Your task to perform on an android device: Open the phone app and click the voicemail tab. Image 0: 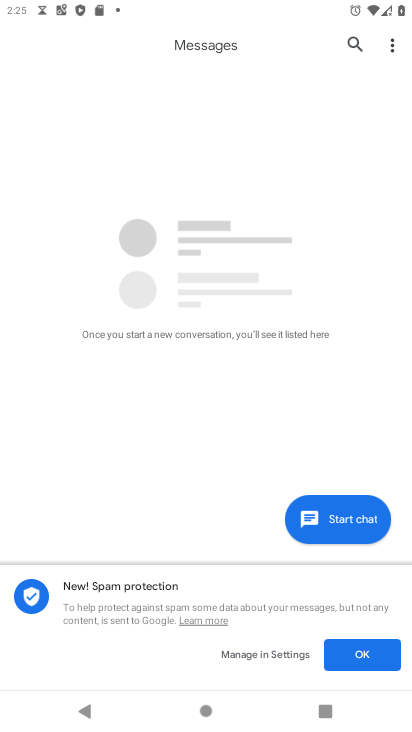
Step 0: press home button
Your task to perform on an android device: Open the phone app and click the voicemail tab. Image 1: 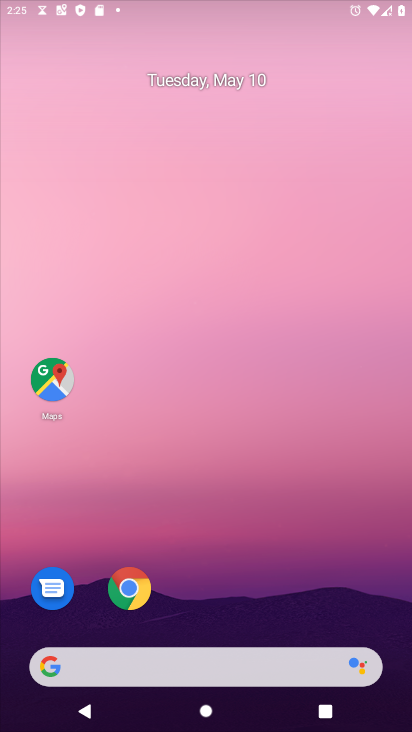
Step 1: drag from (222, 582) to (218, 248)
Your task to perform on an android device: Open the phone app and click the voicemail tab. Image 2: 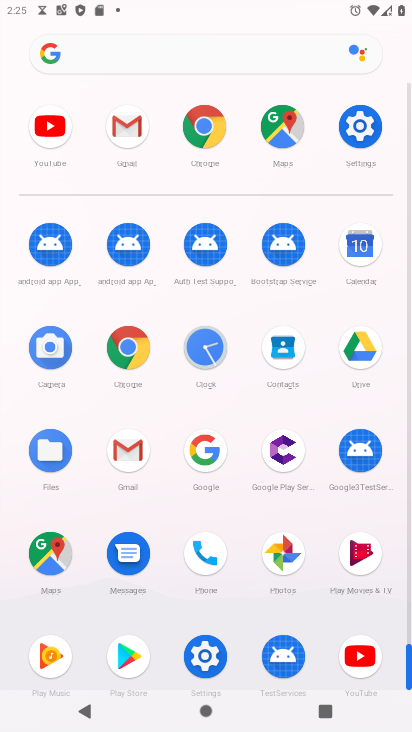
Step 2: drag from (344, 660) to (312, 465)
Your task to perform on an android device: Open the phone app and click the voicemail tab. Image 3: 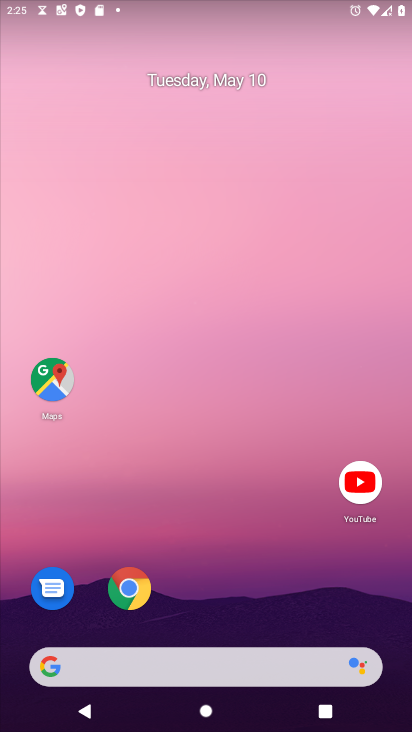
Step 3: drag from (236, 594) to (235, 392)
Your task to perform on an android device: Open the phone app and click the voicemail tab. Image 4: 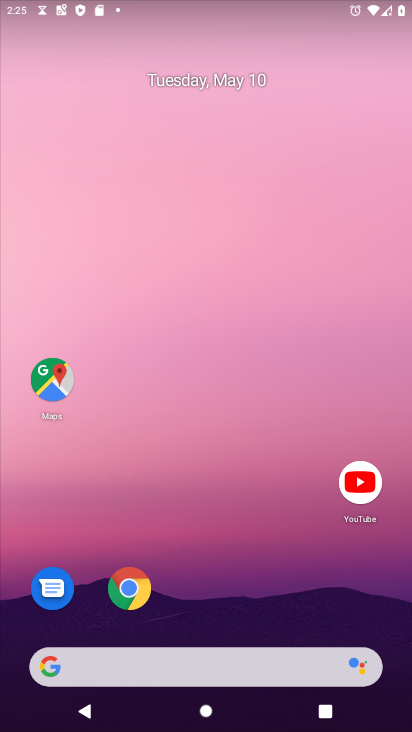
Step 4: drag from (267, 591) to (247, 312)
Your task to perform on an android device: Open the phone app and click the voicemail tab. Image 5: 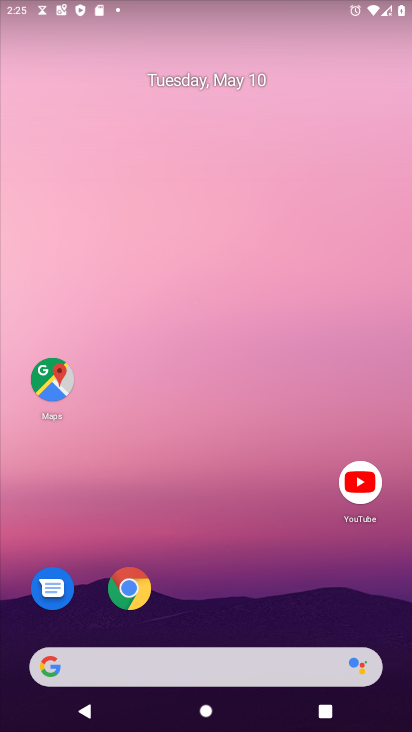
Step 5: drag from (310, 589) to (270, 271)
Your task to perform on an android device: Open the phone app and click the voicemail tab. Image 6: 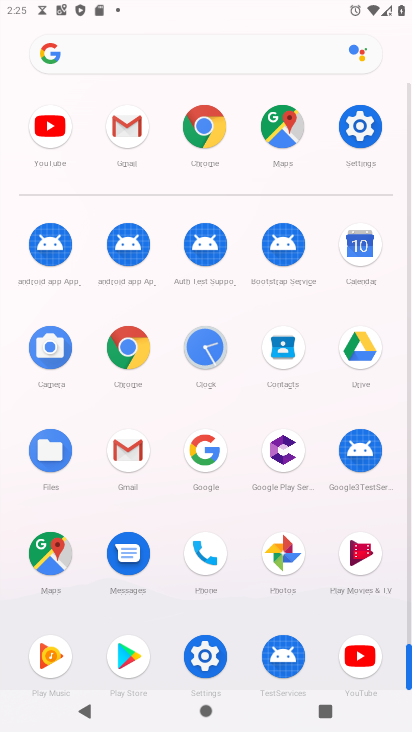
Step 6: click (365, 547)
Your task to perform on an android device: Open the phone app and click the voicemail tab. Image 7: 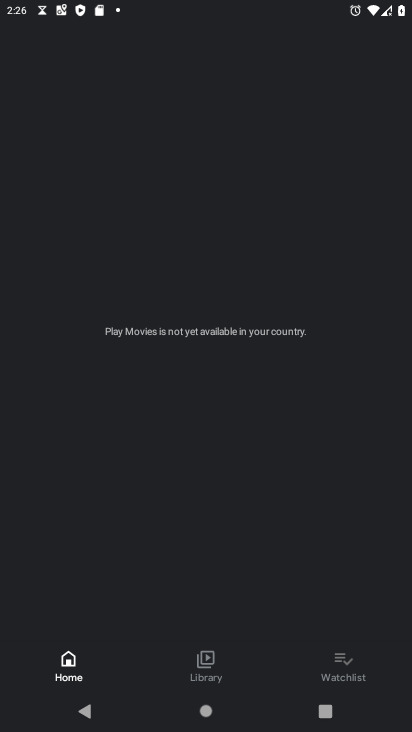
Step 7: press home button
Your task to perform on an android device: Open the phone app and click the voicemail tab. Image 8: 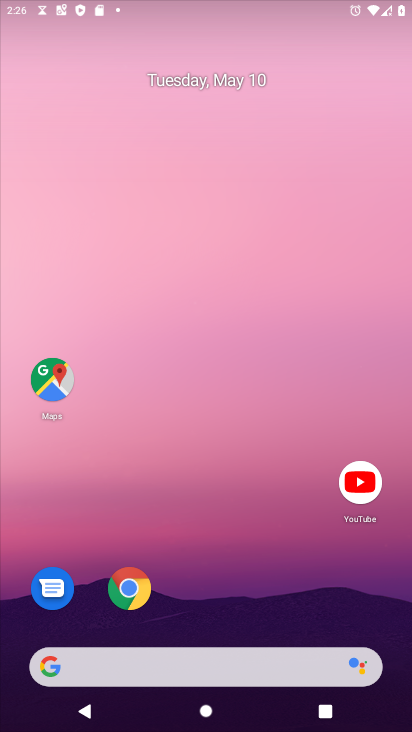
Step 8: drag from (203, 560) to (218, 232)
Your task to perform on an android device: Open the phone app and click the voicemail tab. Image 9: 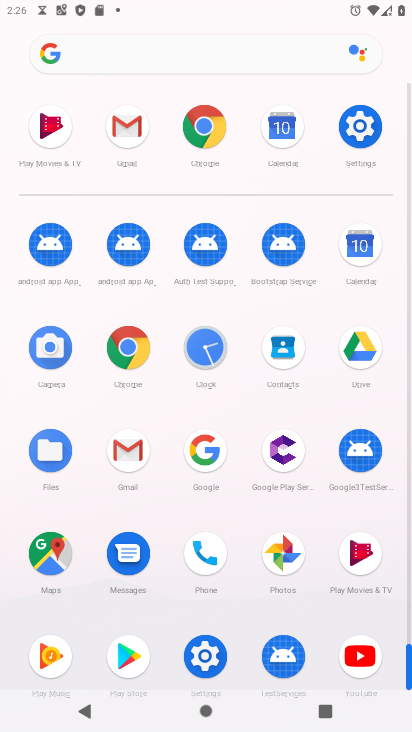
Step 9: click (189, 552)
Your task to perform on an android device: Open the phone app and click the voicemail tab. Image 10: 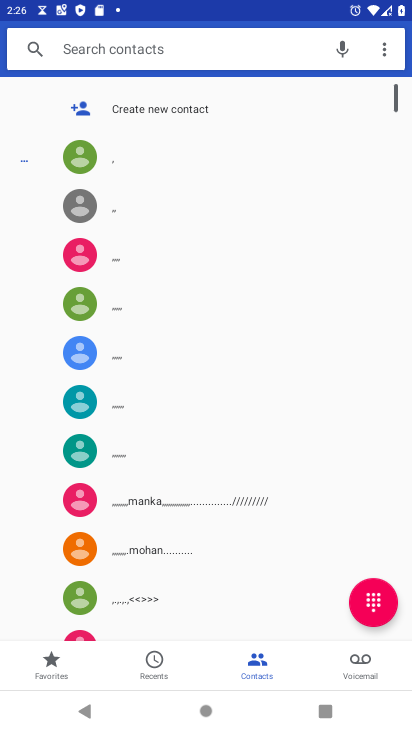
Step 10: click (363, 656)
Your task to perform on an android device: Open the phone app and click the voicemail tab. Image 11: 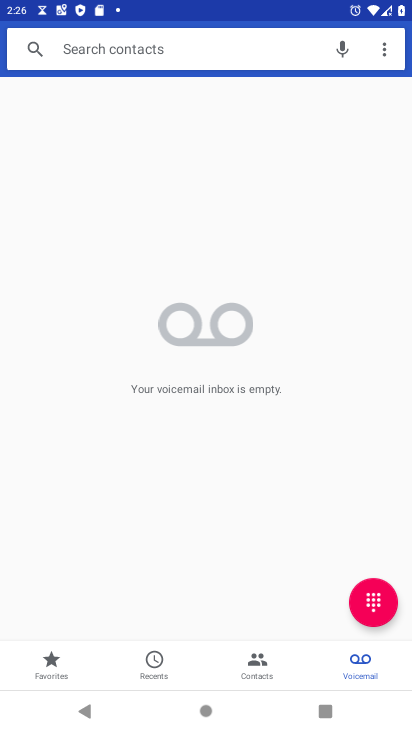
Step 11: task complete